Your task to perform on an android device: Open Google Chrome and open the bookmarks view Image 0: 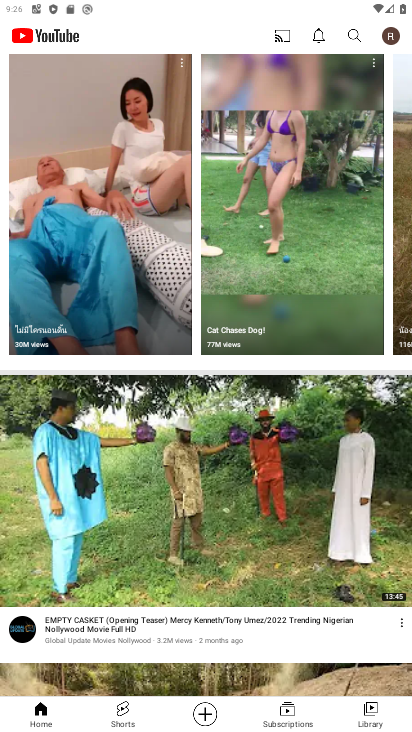
Step 0: drag from (184, 583) to (219, 65)
Your task to perform on an android device: Open Google Chrome and open the bookmarks view Image 1: 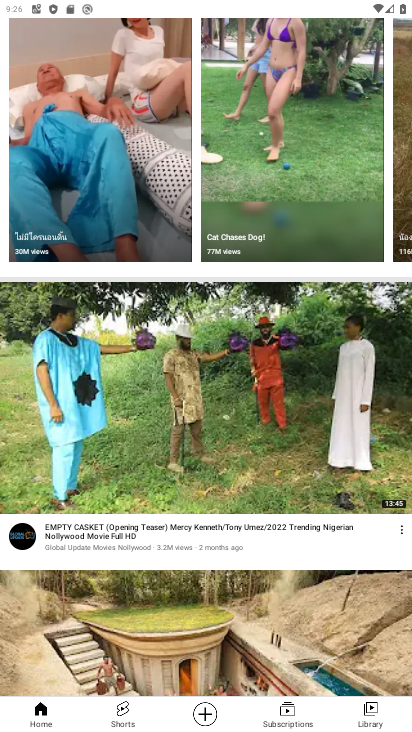
Step 1: press home button
Your task to perform on an android device: Open Google Chrome and open the bookmarks view Image 2: 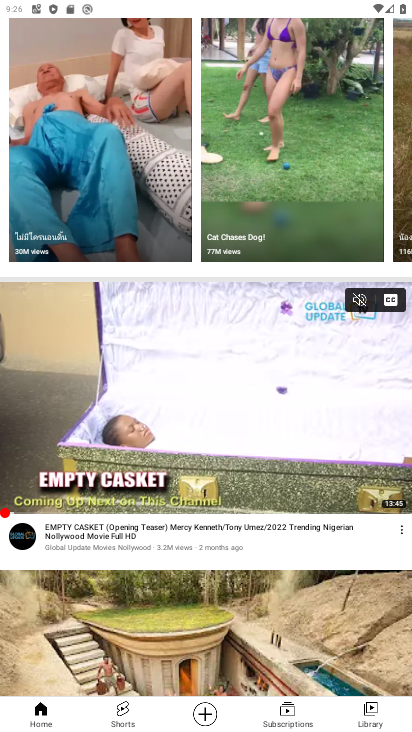
Step 2: drag from (225, 653) to (316, 67)
Your task to perform on an android device: Open Google Chrome and open the bookmarks view Image 3: 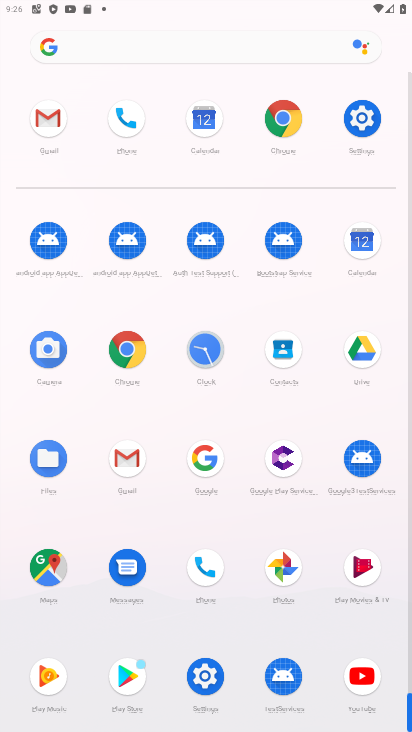
Step 3: click (123, 342)
Your task to perform on an android device: Open Google Chrome and open the bookmarks view Image 4: 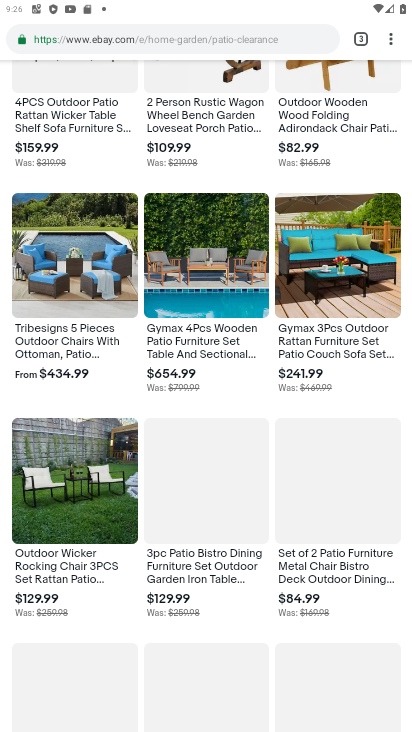
Step 4: drag from (214, 368) to (315, 686)
Your task to perform on an android device: Open Google Chrome and open the bookmarks view Image 5: 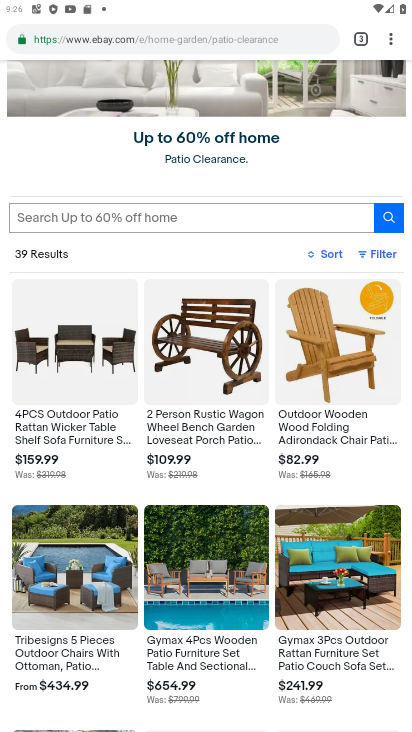
Step 5: drag from (248, 190) to (361, 649)
Your task to perform on an android device: Open Google Chrome and open the bookmarks view Image 6: 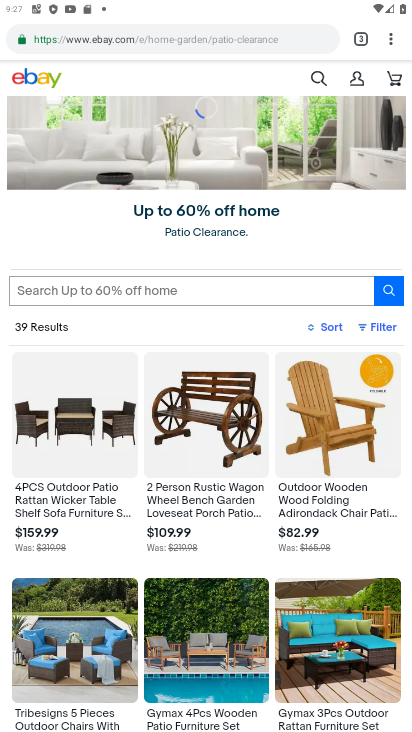
Step 6: drag from (226, 550) to (286, 302)
Your task to perform on an android device: Open Google Chrome and open the bookmarks view Image 7: 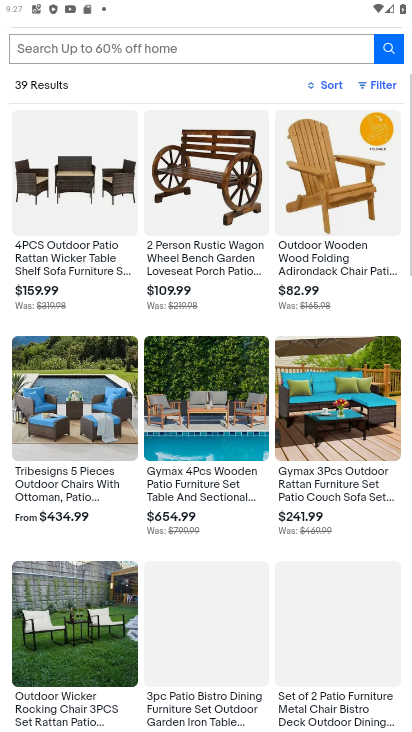
Step 7: drag from (264, 111) to (255, 686)
Your task to perform on an android device: Open Google Chrome and open the bookmarks view Image 8: 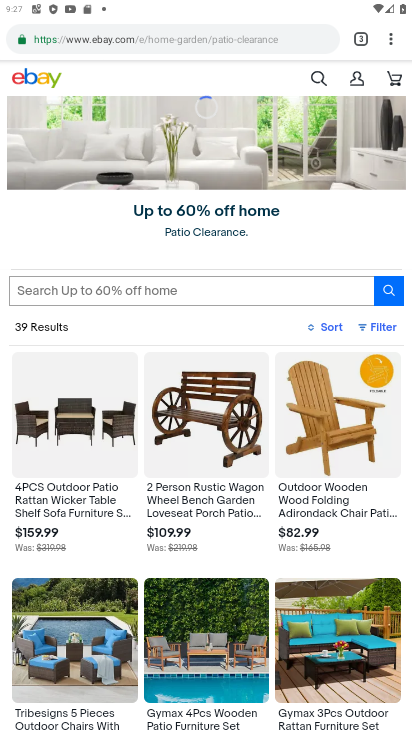
Step 8: click (393, 39)
Your task to perform on an android device: Open Google Chrome and open the bookmarks view Image 9: 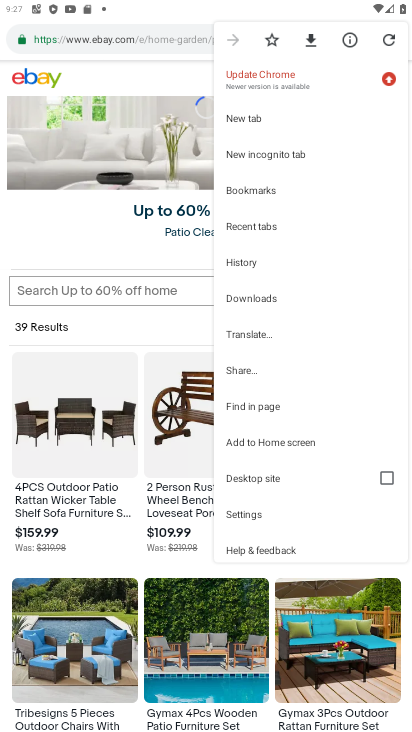
Step 9: click (275, 193)
Your task to perform on an android device: Open Google Chrome and open the bookmarks view Image 10: 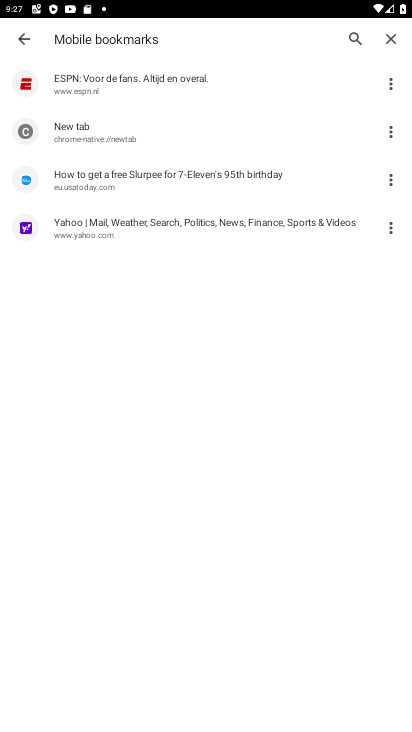
Step 10: task complete